Your task to perform on an android device: turn off wifi Image 0: 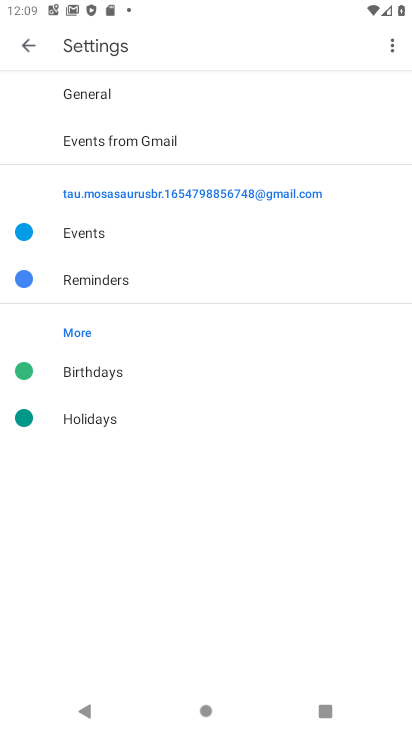
Step 0: press home button
Your task to perform on an android device: turn off wifi Image 1: 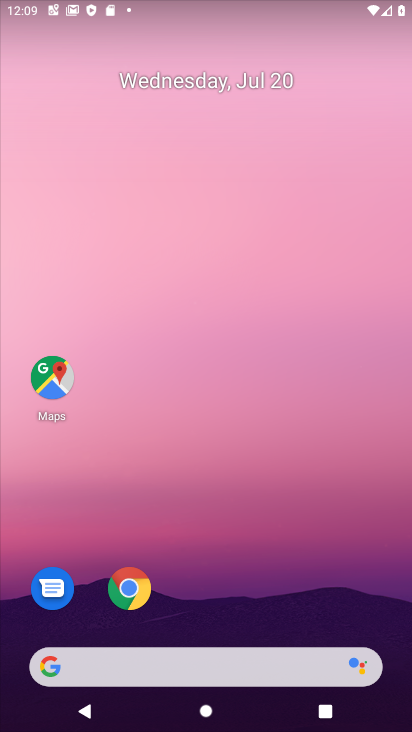
Step 1: drag from (396, 626) to (337, 73)
Your task to perform on an android device: turn off wifi Image 2: 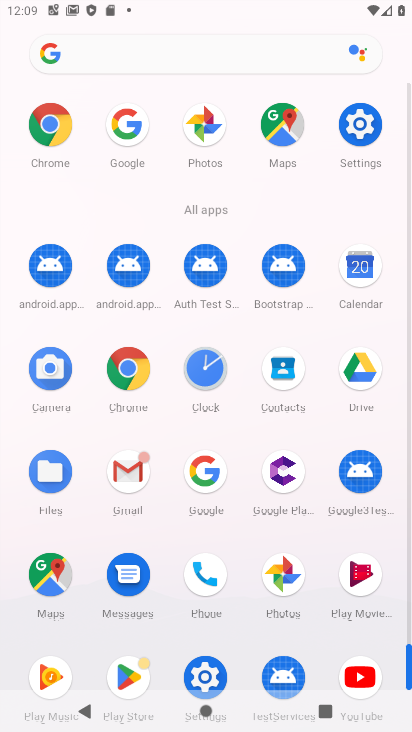
Step 2: click (374, 136)
Your task to perform on an android device: turn off wifi Image 3: 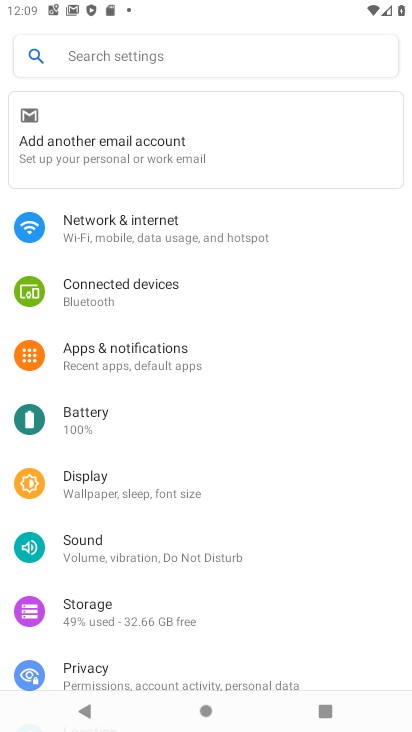
Step 3: click (100, 244)
Your task to perform on an android device: turn off wifi Image 4: 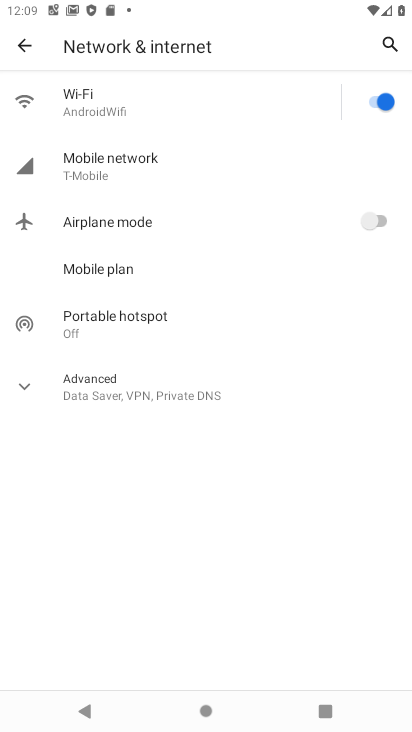
Step 4: click (368, 103)
Your task to perform on an android device: turn off wifi Image 5: 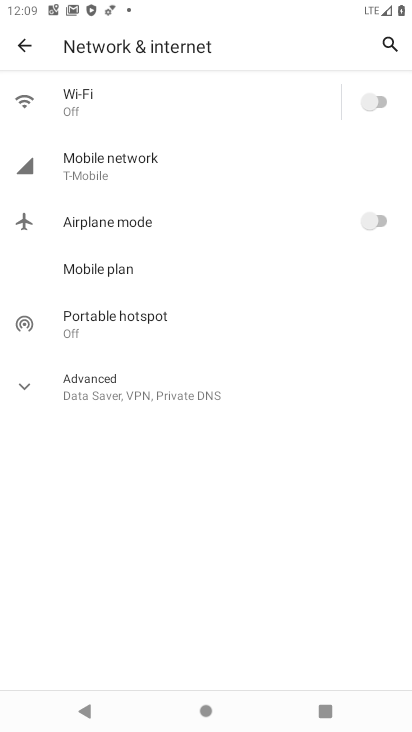
Step 5: task complete